Your task to perform on an android device: open a bookmark in the chrome app Image 0: 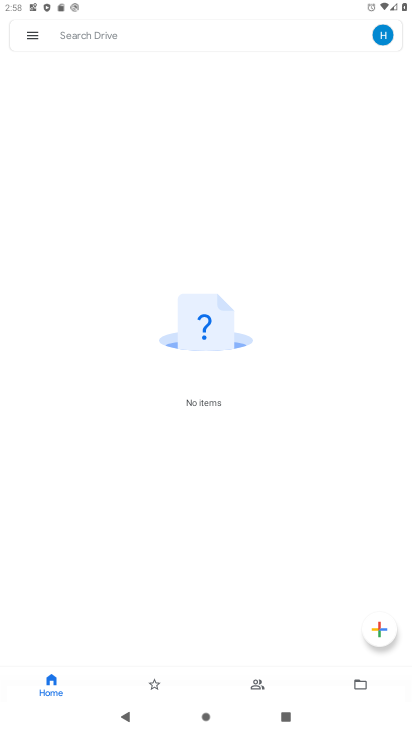
Step 0: press home button
Your task to perform on an android device: open a bookmark in the chrome app Image 1: 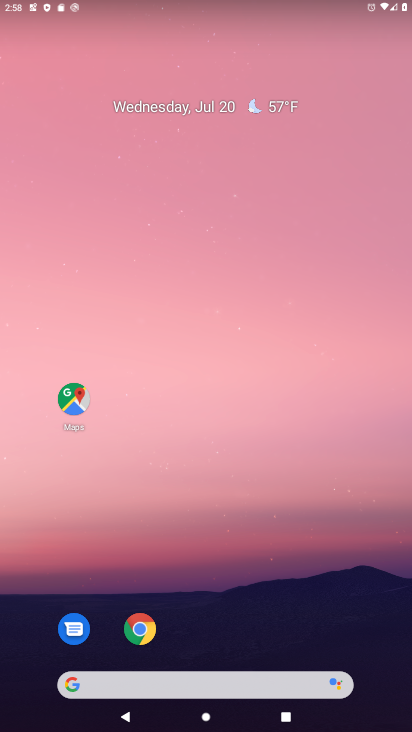
Step 1: click (137, 628)
Your task to perform on an android device: open a bookmark in the chrome app Image 2: 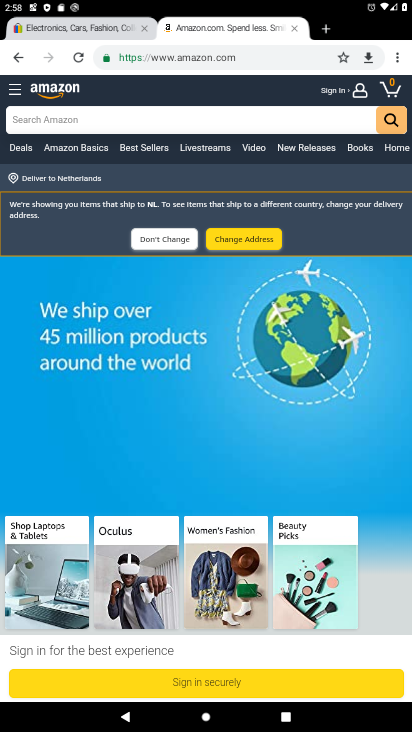
Step 2: click (396, 62)
Your task to perform on an android device: open a bookmark in the chrome app Image 3: 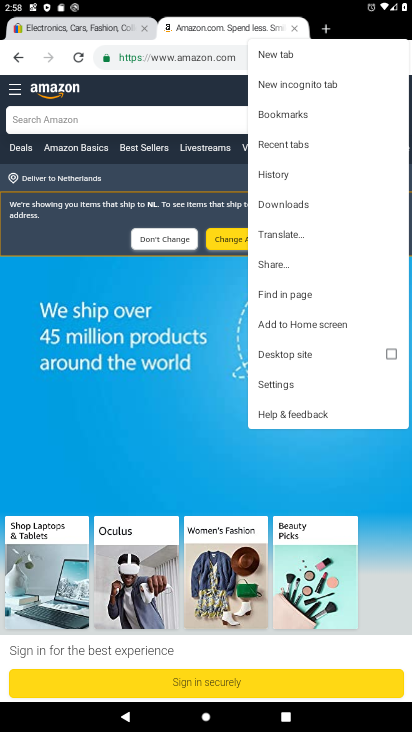
Step 3: click (283, 115)
Your task to perform on an android device: open a bookmark in the chrome app Image 4: 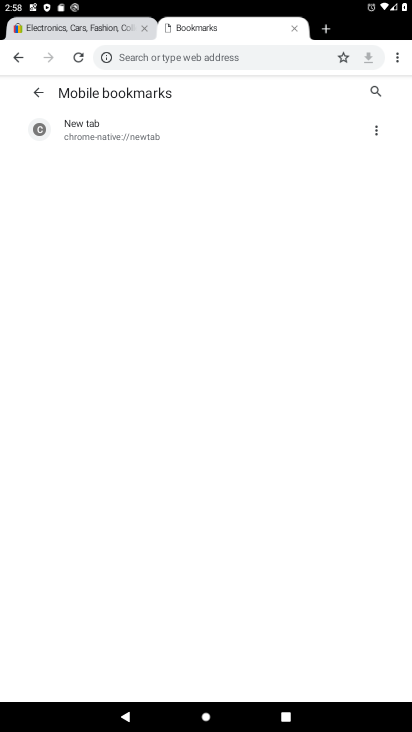
Step 4: task complete